Your task to perform on an android device: turn on translation in the chrome app Image 0: 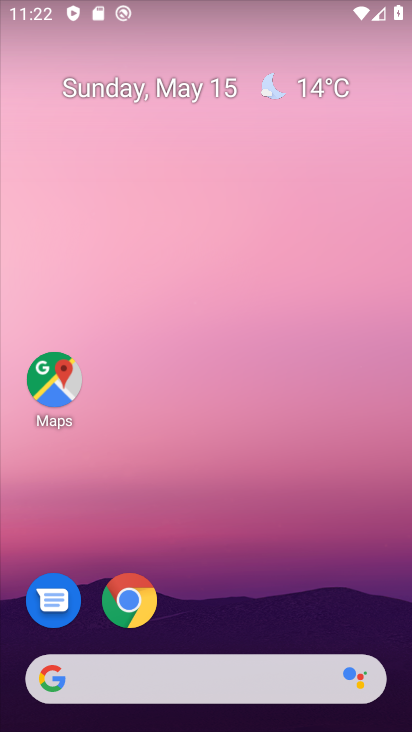
Step 0: click (130, 598)
Your task to perform on an android device: turn on translation in the chrome app Image 1: 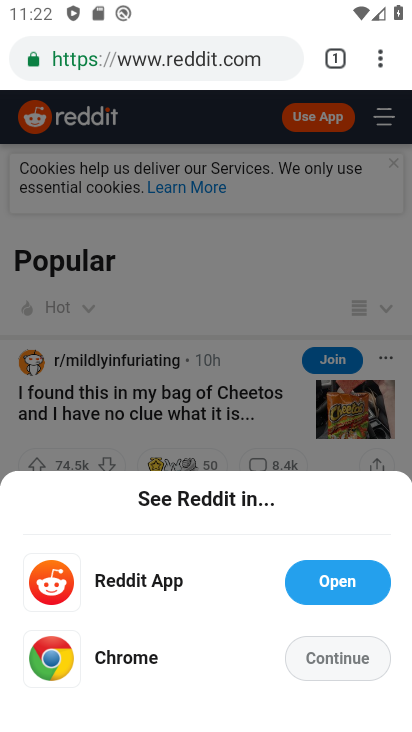
Step 1: click (382, 60)
Your task to perform on an android device: turn on translation in the chrome app Image 2: 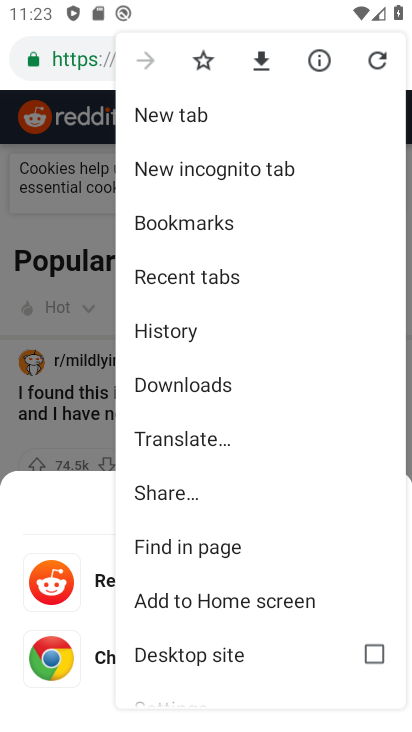
Step 2: drag from (323, 630) to (320, 229)
Your task to perform on an android device: turn on translation in the chrome app Image 3: 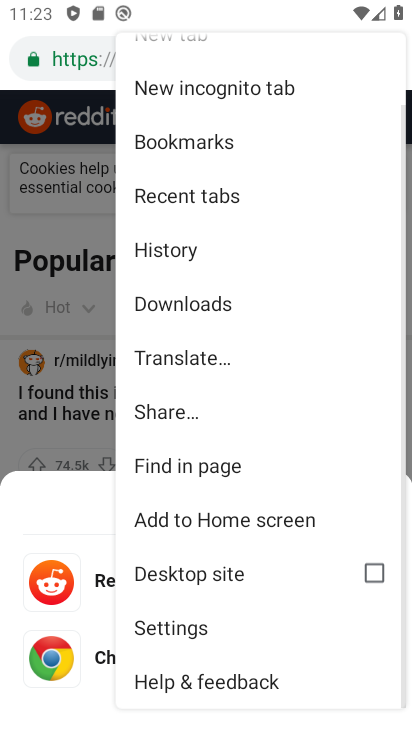
Step 3: click (186, 619)
Your task to perform on an android device: turn on translation in the chrome app Image 4: 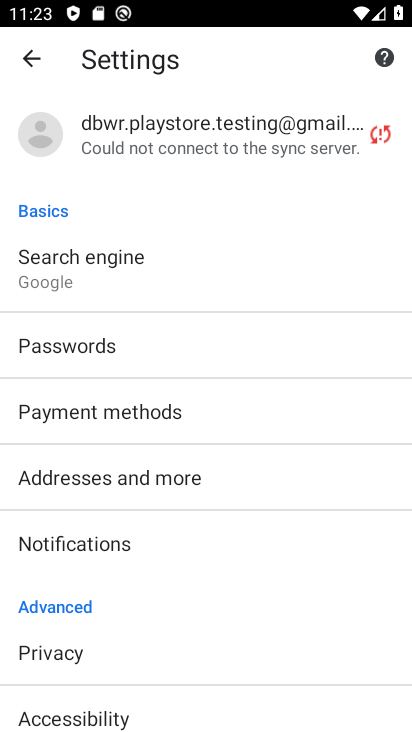
Step 4: drag from (201, 651) to (269, 124)
Your task to perform on an android device: turn on translation in the chrome app Image 5: 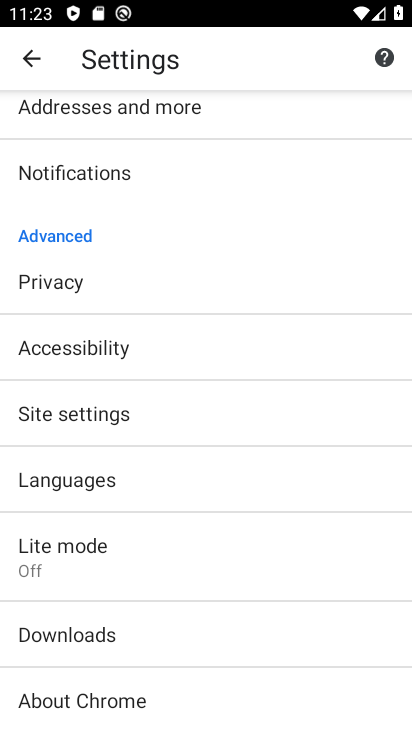
Step 5: click (53, 478)
Your task to perform on an android device: turn on translation in the chrome app Image 6: 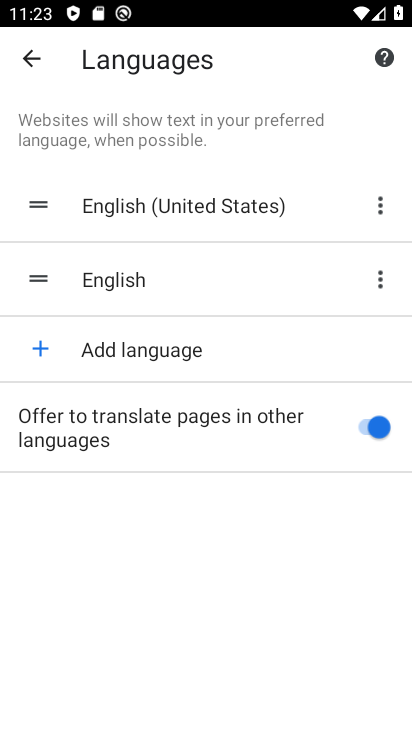
Step 6: task complete